Your task to perform on an android device: change notifications settings Image 0: 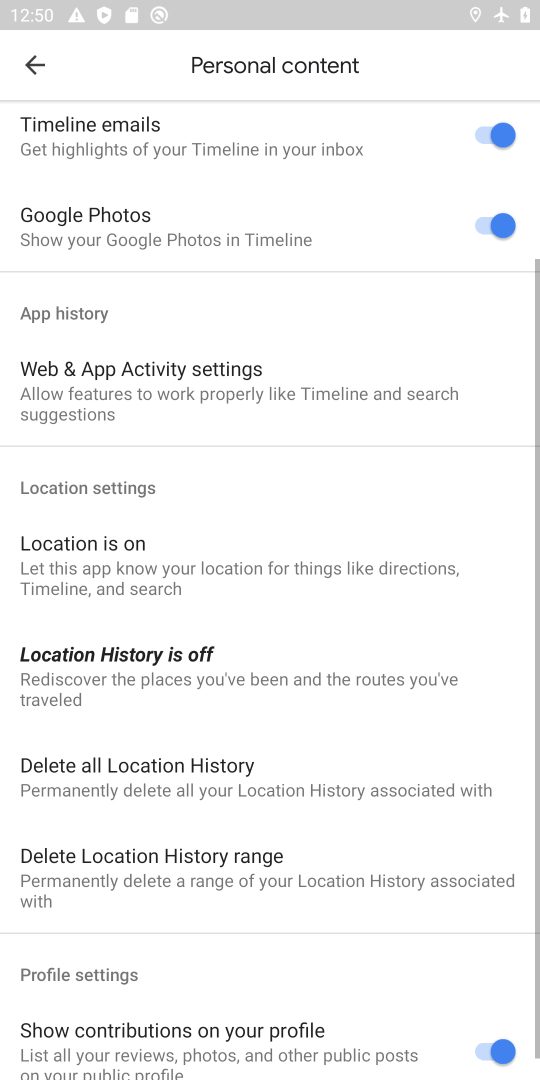
Step 0: press home button
Your task to perform on an android device: change notifications settings Image 1: 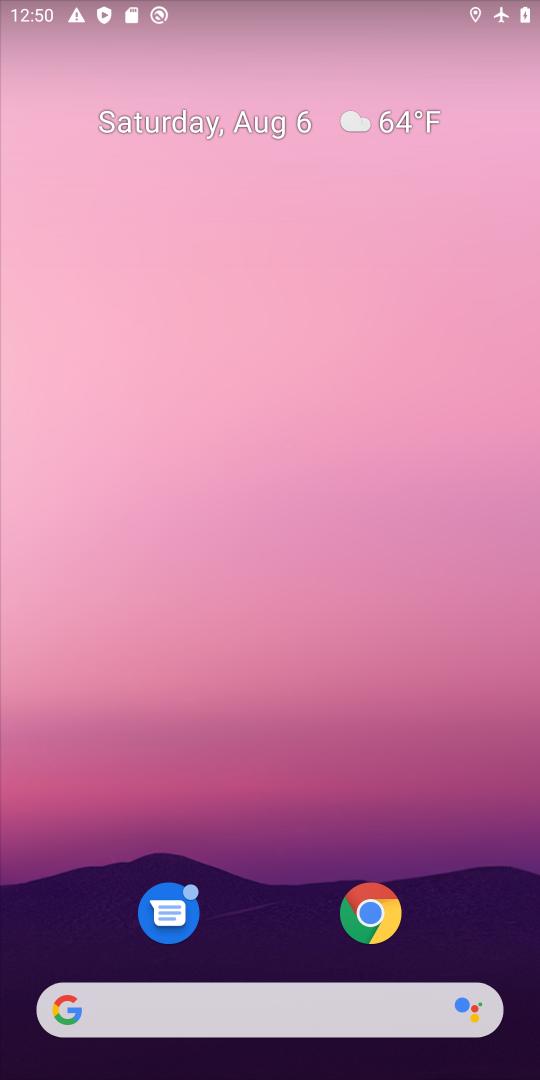
Step 1: drag from (456, 823) to (456, 288)
Your task to perform on an android device: change notifications settings Image 2: 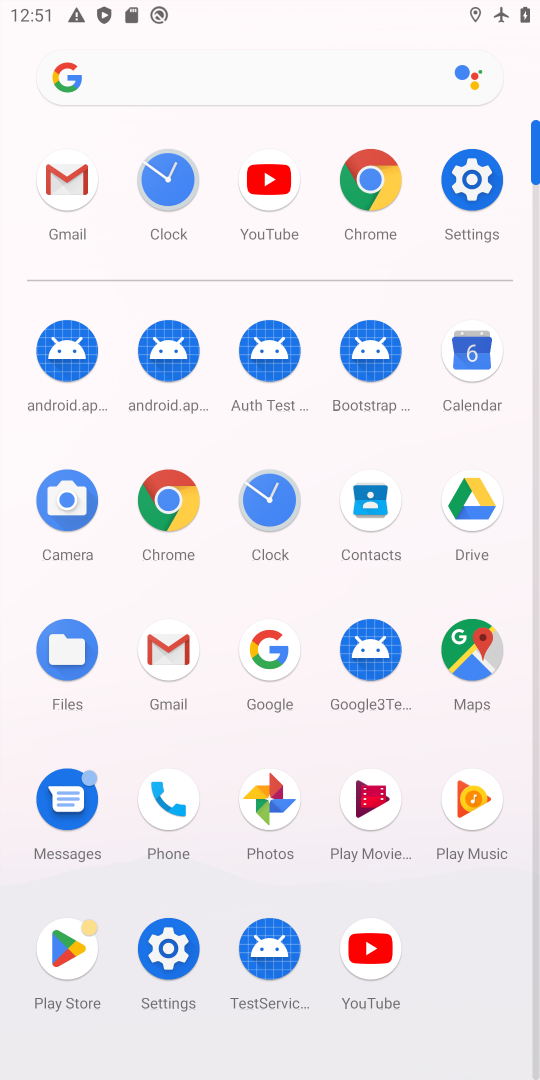
Step 2: click (456, 179)
Your task to perform on an android device: change notifications settings Image 3: 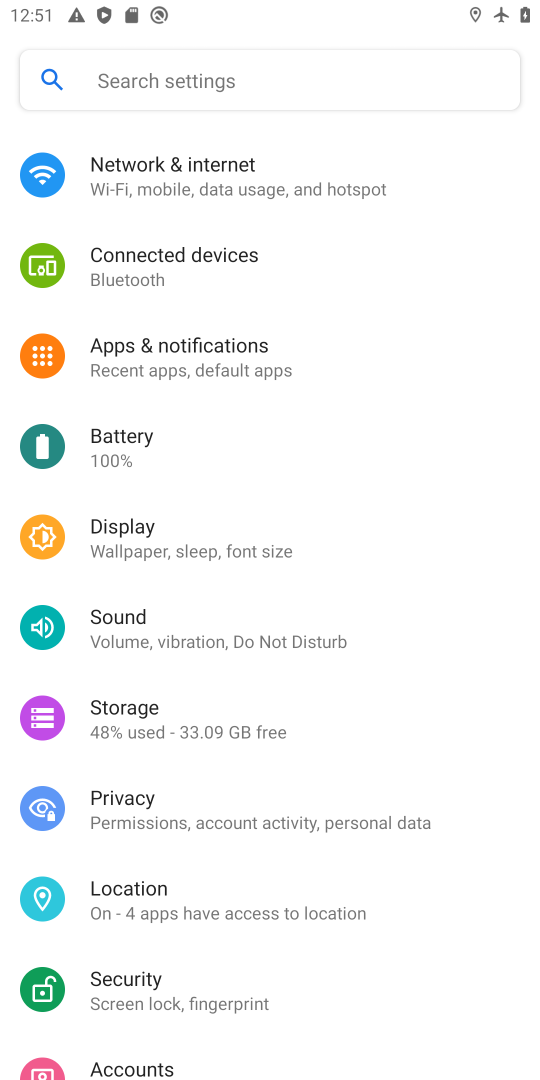
Step 3: drag from (449, 516) to (453, 343)
Your task to perform on an android device: change notifications settings Image 4: 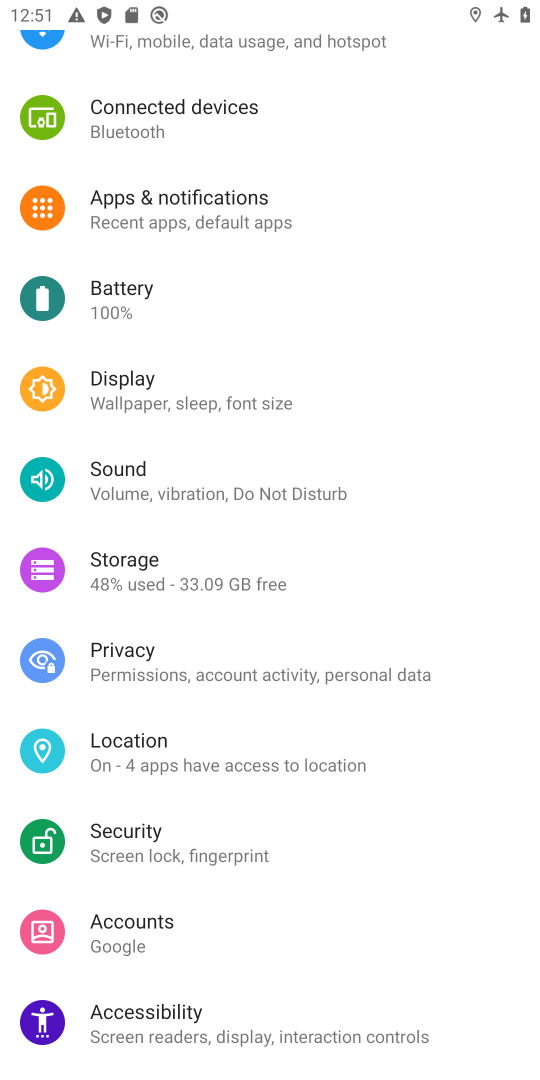
Step 4: drag from (422, 525) to (432, 433)
Your task to perform on an android device: change notifications settings Image 5: 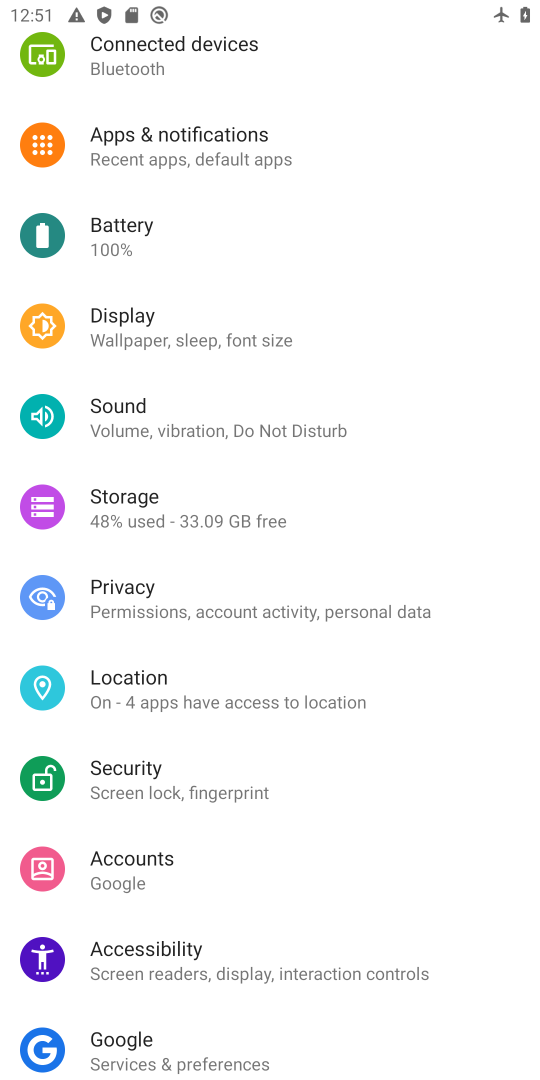
Step 5: drag from (474, 187) to (456, 357)
Your task to perform on an android device: change notifications settings Image 6: 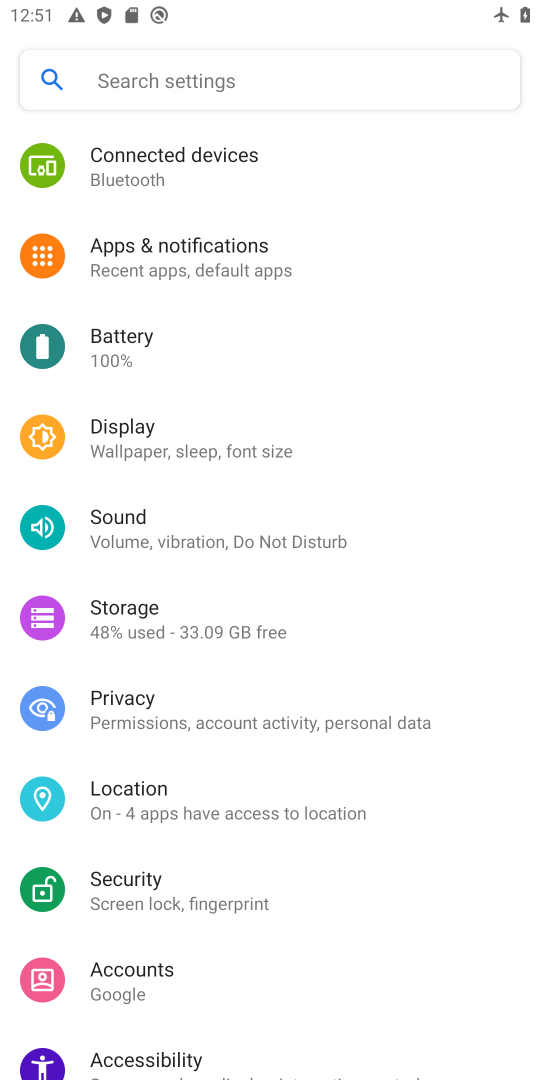
Step 6: click (271, 273)
Your task to perform on an android device: change notifications settings Image 7: 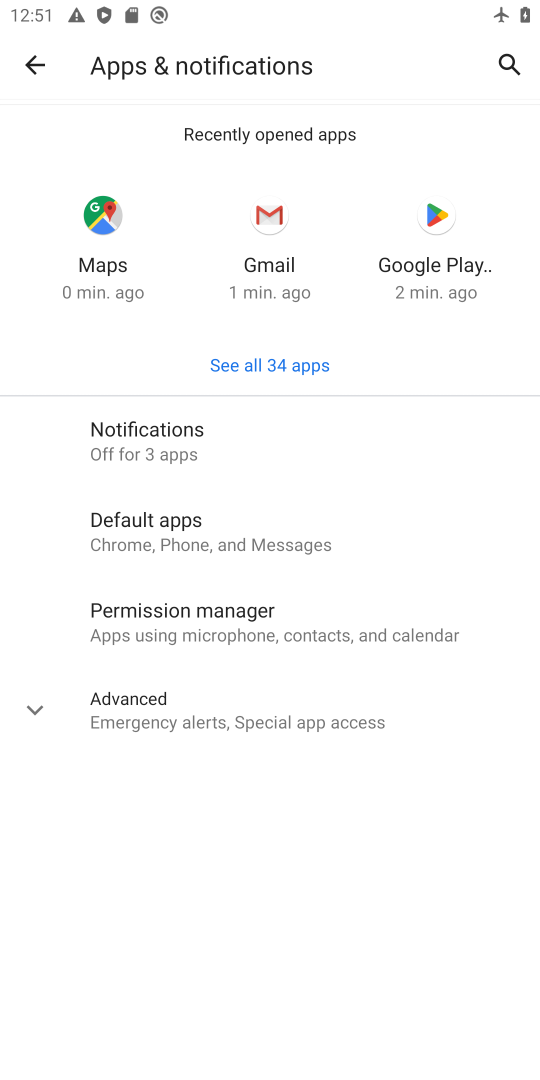
Step 7: click (269, 442)
Your task to perform on an android device: change notifications settings Image 8: 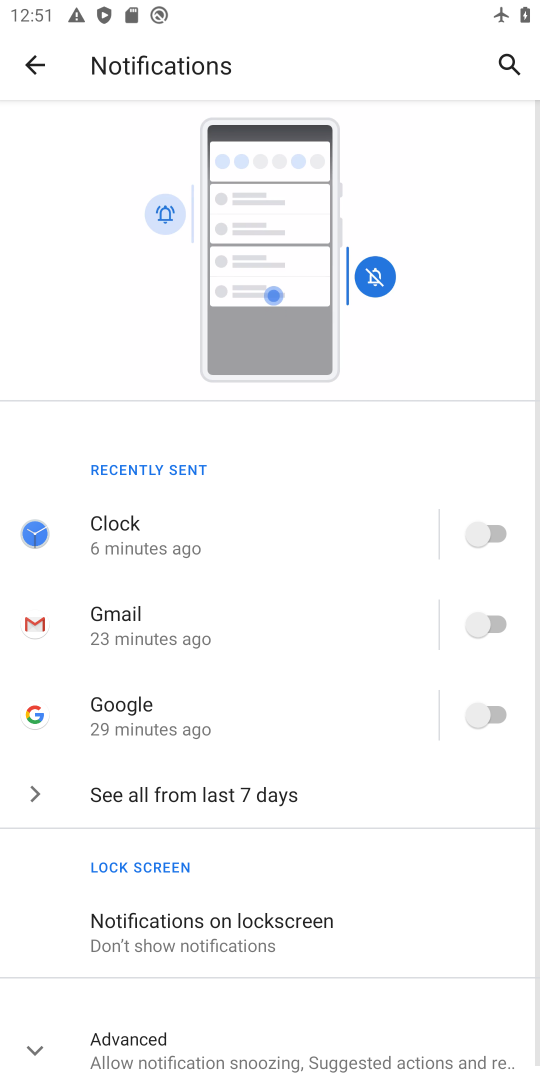
Step 8: task complete